Your task to perform on an android device: Open Google Maps and go to "Timeline" Image 0: 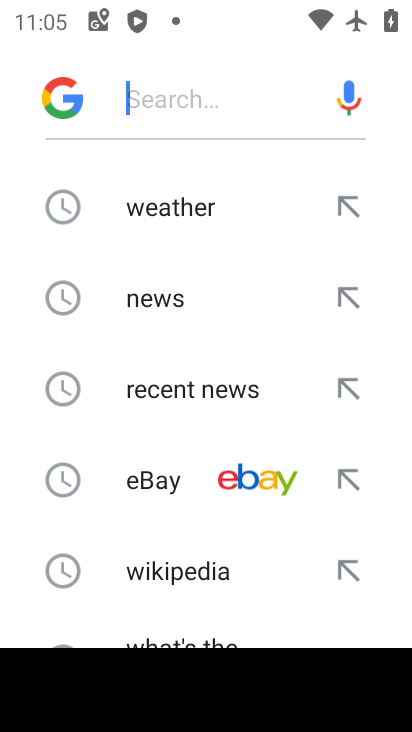
Step 0: press back button
Your task to perform on an android device: Open Google Maps and go to "Timeline" Image 1: 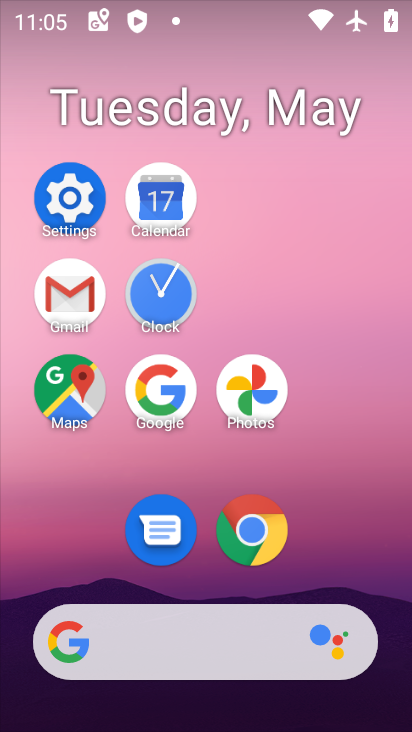
Step 1: click (58, 381)
Your task to perform on an android device: Open Google Maps and go to "Timeline" Image 2: 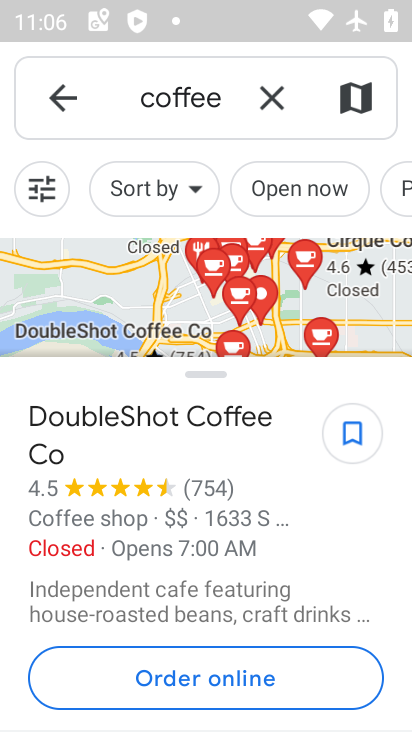
Step 2: click (66, 92)
Your task to perform on an android device: Open Google Maps and go to "Timeline" Image 3: 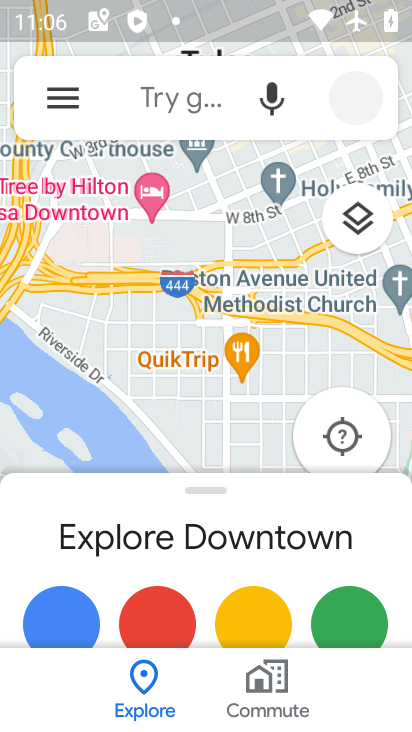
Step 3: click (68, 102)
Your task to perform on an android device: Open Google Maps and go to "Timeline" Image 4: 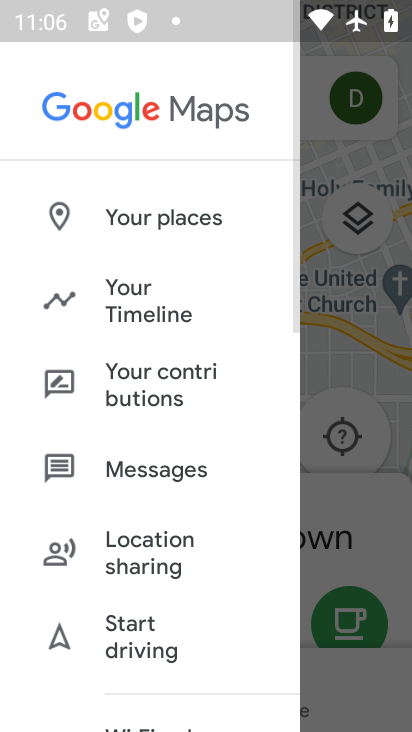
Step 4: click (168, 308)
Your task to perform on an android device: Open Google Maps and go to "Timeline" Image 5: 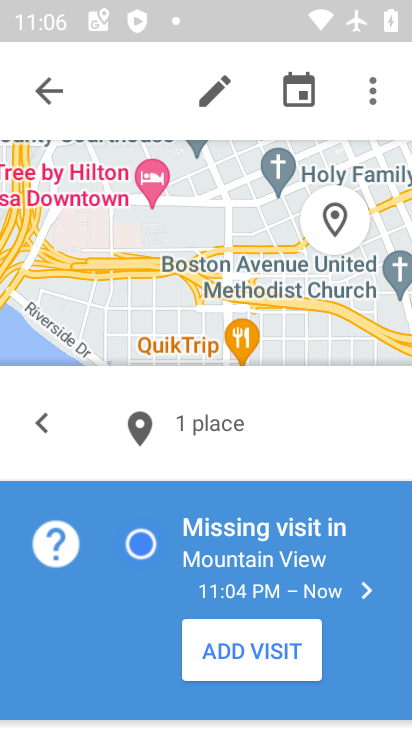
Step 5: task complete